Your task to perform on an android device: Search for seafood restaurants on Google Maps Image 0: 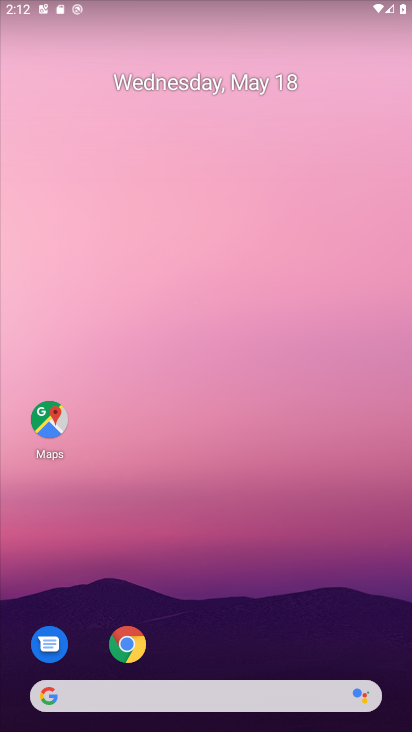
Step 0: click (43, 433)
Your task to perform on an android device: Search for seafood restaurants on Google Maps Image 1: 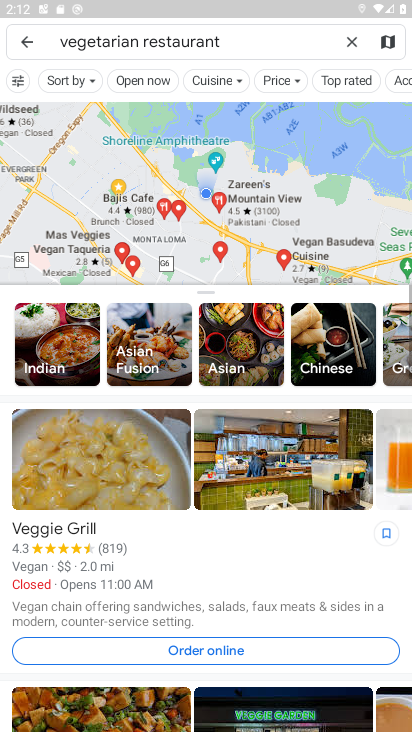
Step 1: click (350, 43)
Your task to perform on an android device: Search for seafood restaurants on Google Maps Image 2: 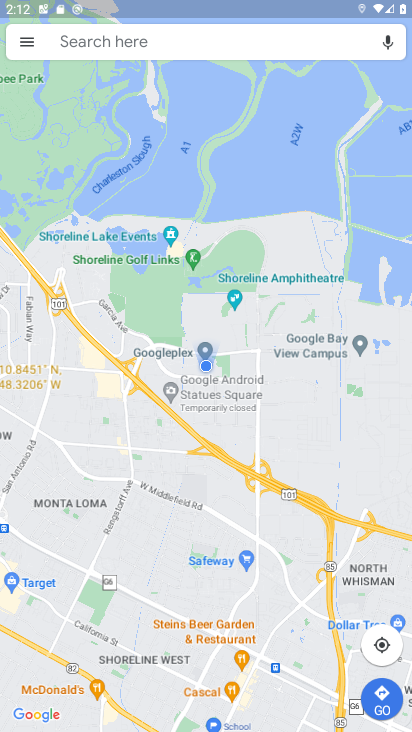
Step 2: click (239, 49)
Your task to perform on an android device: Search for seafood restaurants on Google Maps Image 3: 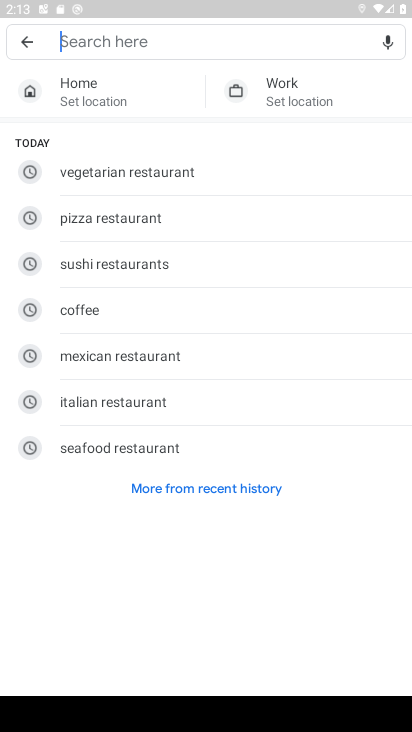
Step 3: type "seafood restaurants"
Your task to perform on an android device: Search for seafood restaurants on Google Maps Image 4: 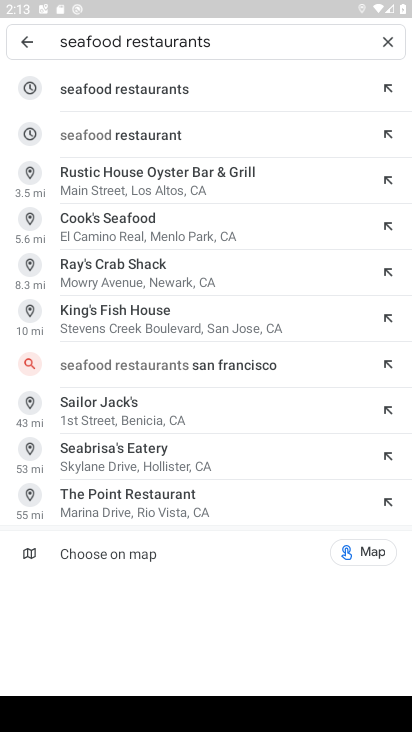
Step 4: click (234, 100)
Your task to perform on an android device: Search for seafood restaurants on Google Maps Image 5: 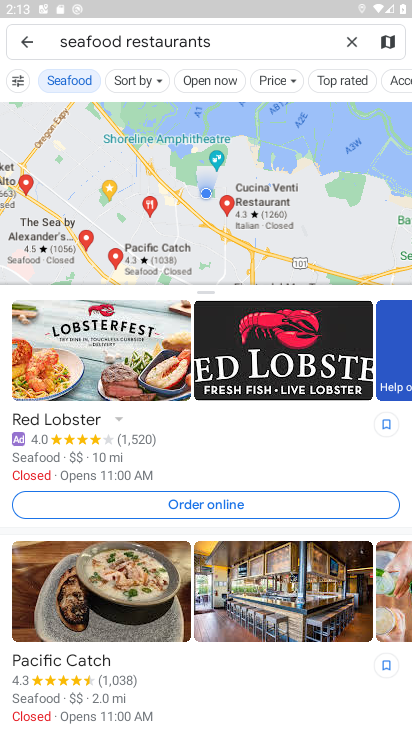
Step 5: task complete